Your task to perform on an android device: Go to wifi settings Image 0: 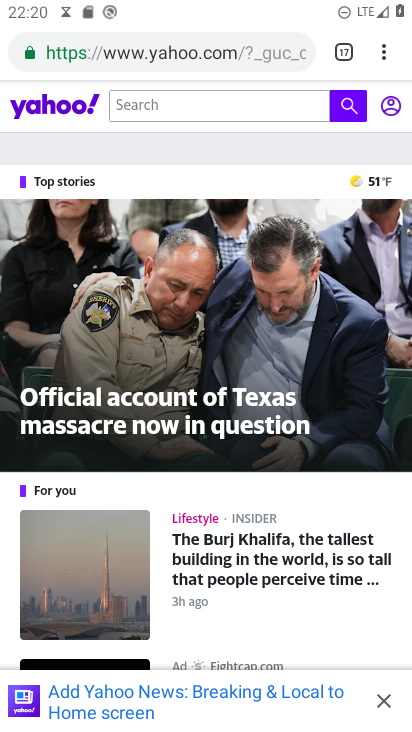
Step 0: press home button
Your task to perform on an android device: Go to wifi settings Image 1: 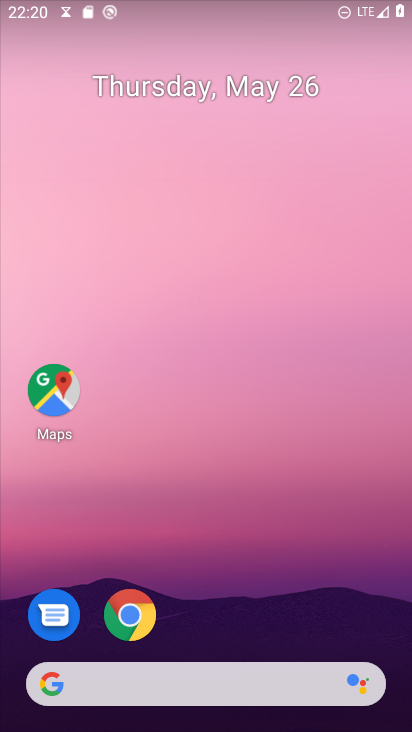
Step 1: drag from (227, 637) to (230, 317)
Your task to perform on an android device: Go to wifi settings Image 2: 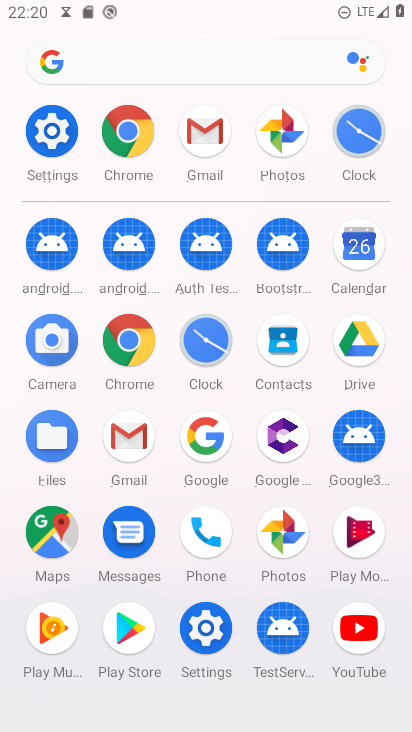
Step 2: click (59, 121)
Your task to perform on an android device: Go to wifi settings Image 3: 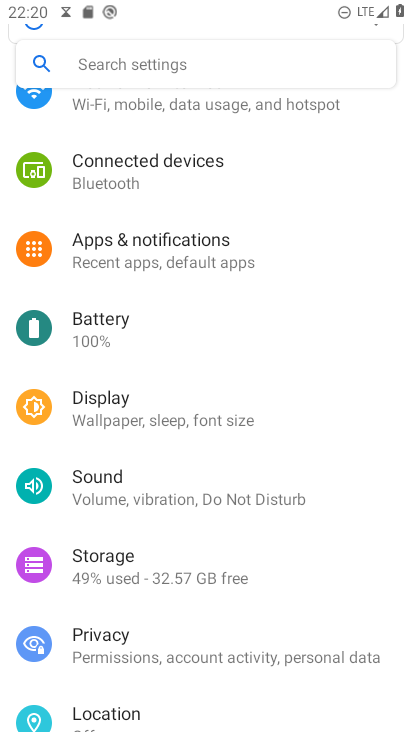
Step 3: drag from (160, 133) to (199, 469)
Your task to perform on an android device: Go to wifi settings Image 4: 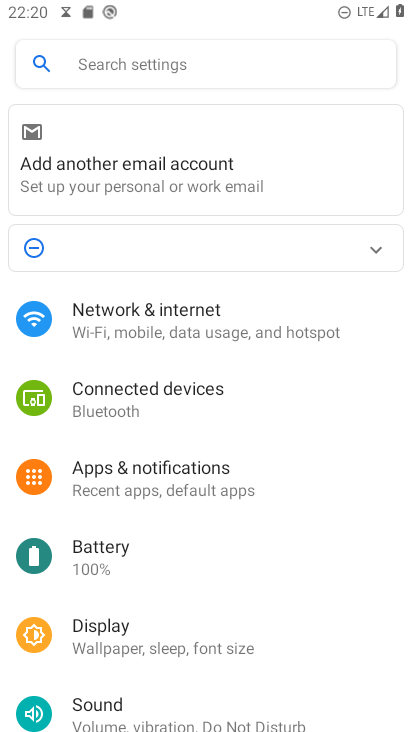
Step 4: click (156, 325)
Your task to perform on an android device: Go to wifi settings Image 5: 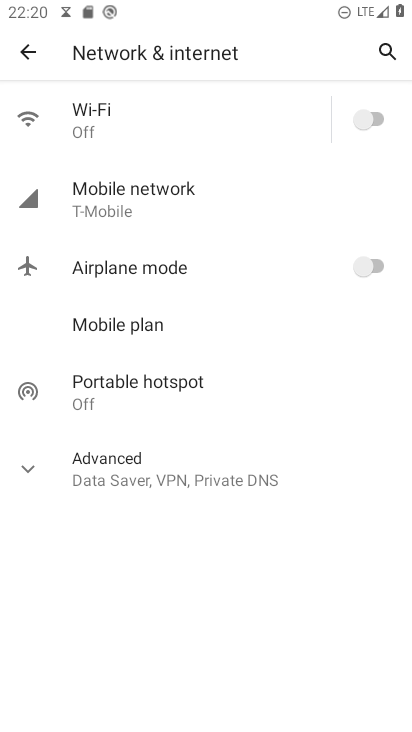
Step 5: click (183, 142)
Your task to perform on an android device: Go to wifi settings Image 6: 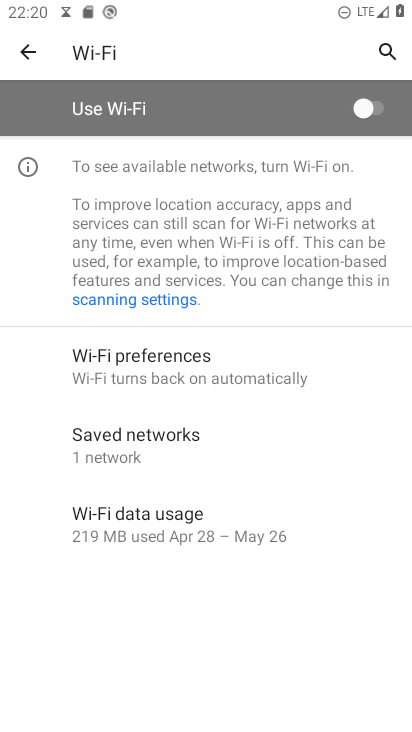
Step 6: task complete